Your task to perform on an android device: Open my contact list Image 0: 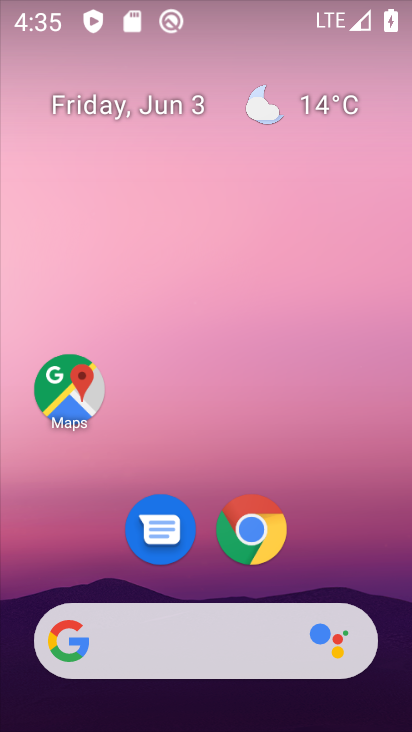
Step 0: press home button
Your task to perform on an android device: Open my contact list Image 1: 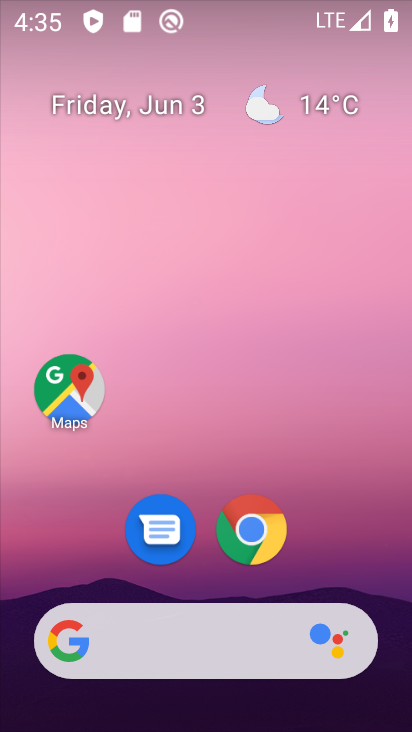
Step 1: drag from (228, 432) to (251, 126)
Your task to perform on an android device: Open my contact list Image 2: 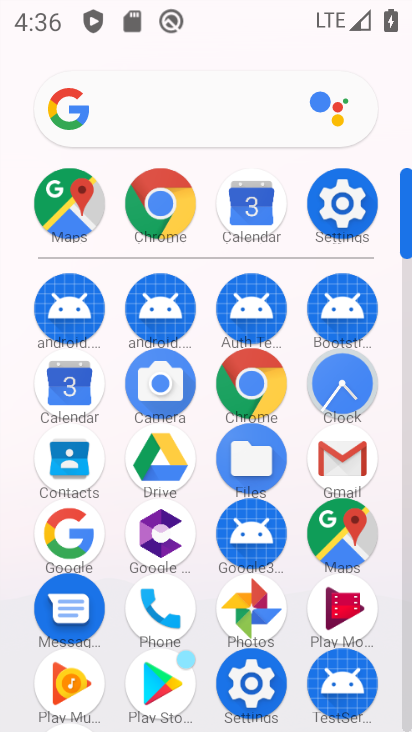
Step 2: click (72, 457)
Your task to perform on an android device: Open my contact list Image 3: 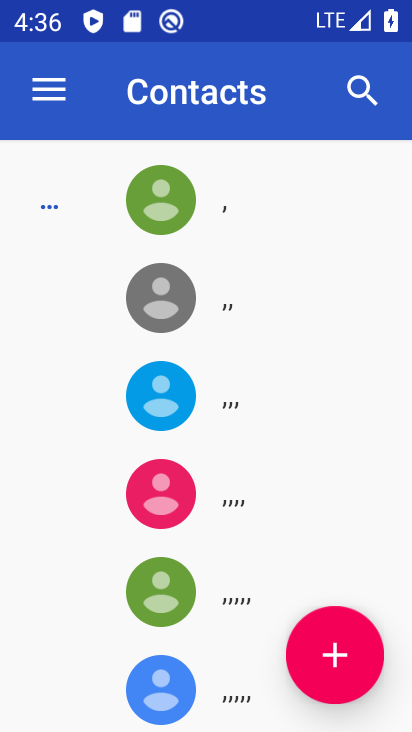
Step 3: task complete